Your task to perform on an android device: Install the Yelp app Image 0: 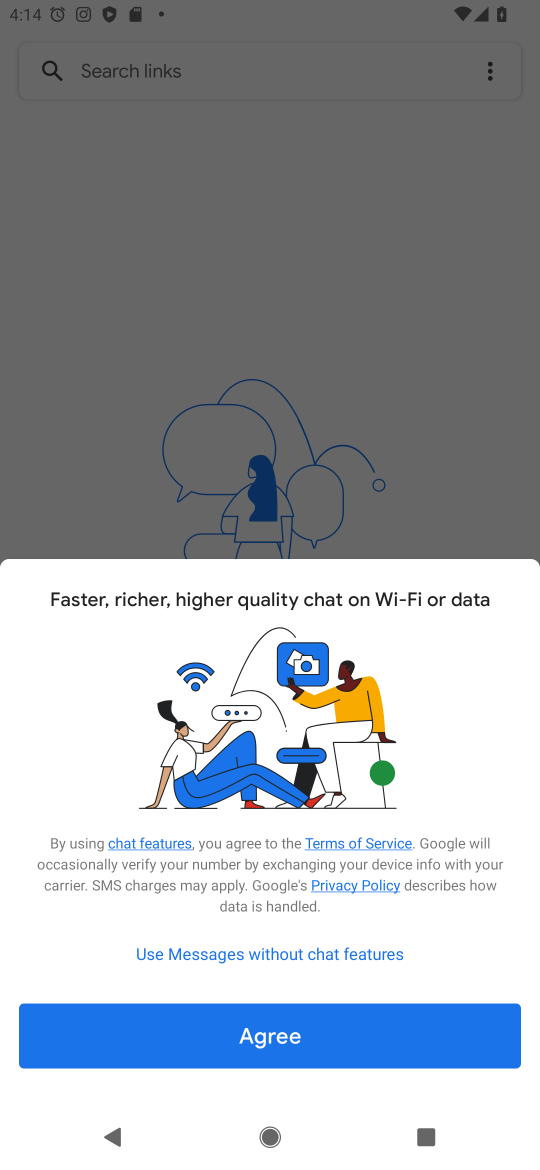
Step 0: press home button
Your task to perform on an android device: Install the Yelp app Image 1: 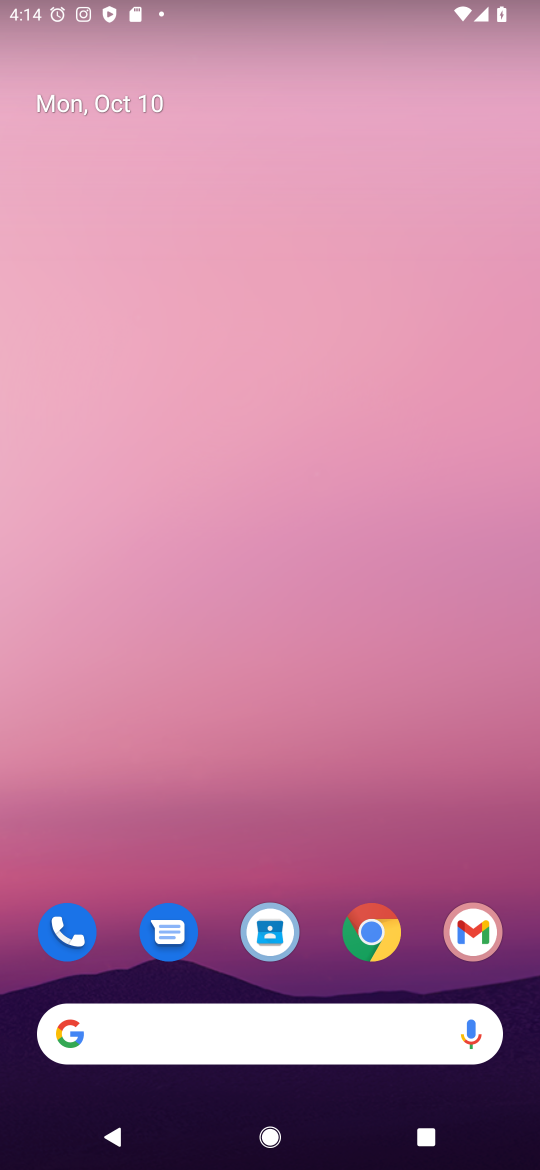
Step 1: drag from (493, 829) to (496, 72)
Your task to perform on an android device: Install the Yelp app Image 2: 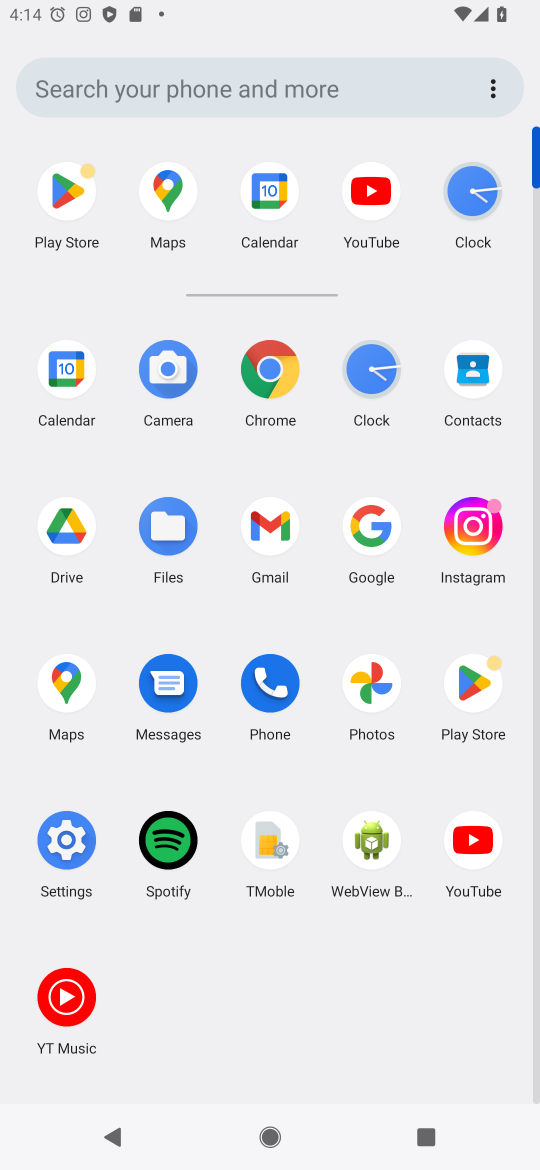
Step 2: click (471, 689)
Your task to perform on an android device: Install the Yelp app Image 3: 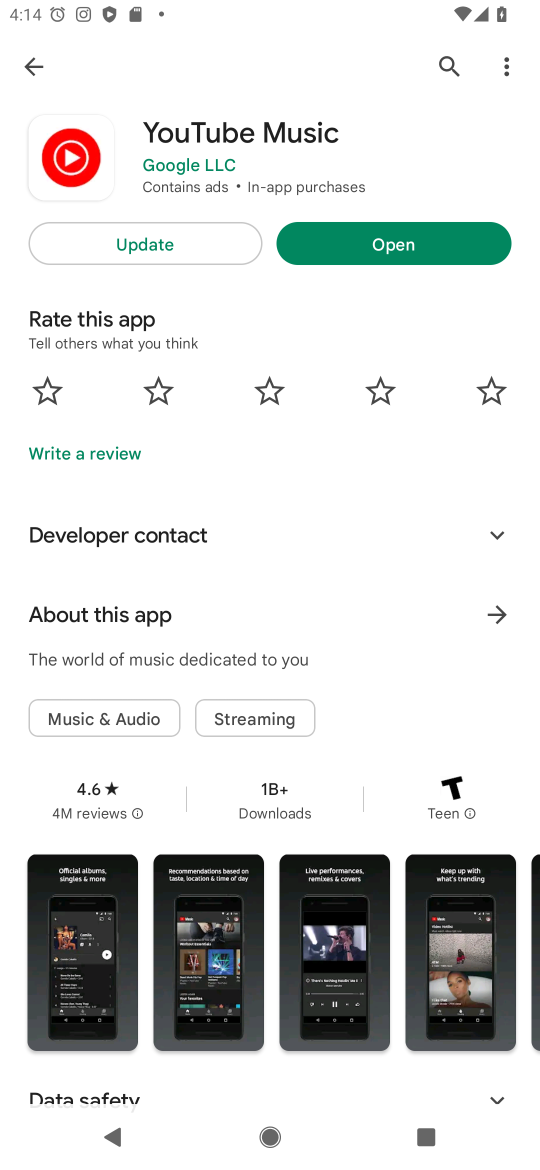
Step 3: press back button
Your task to perform on an android device: Install the Yelp app Image 4: 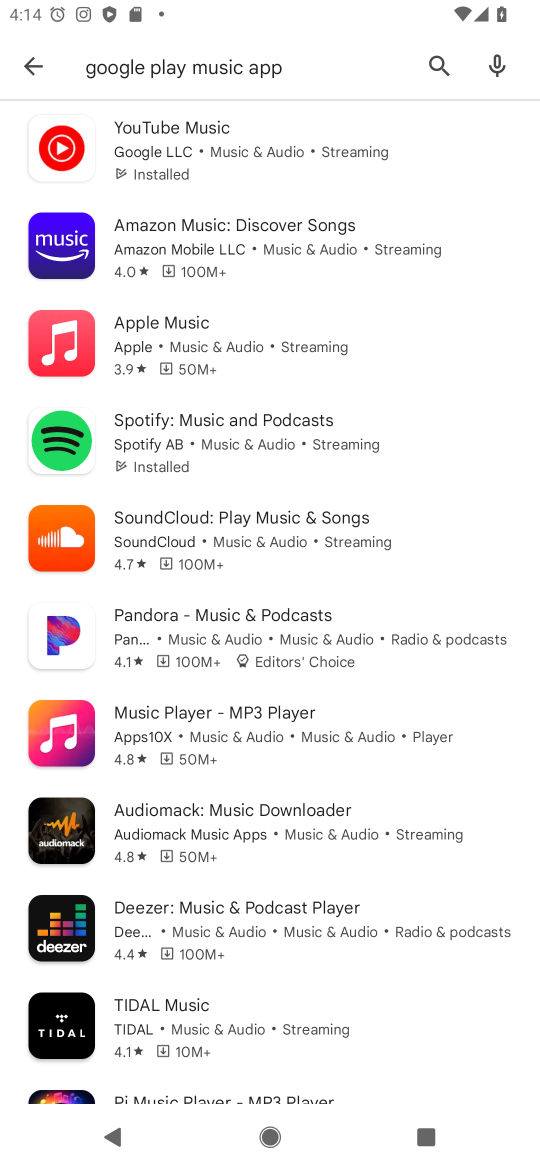
Step 4: press back button
Your task to perform on an android device: Install the Yelp app Image 5: 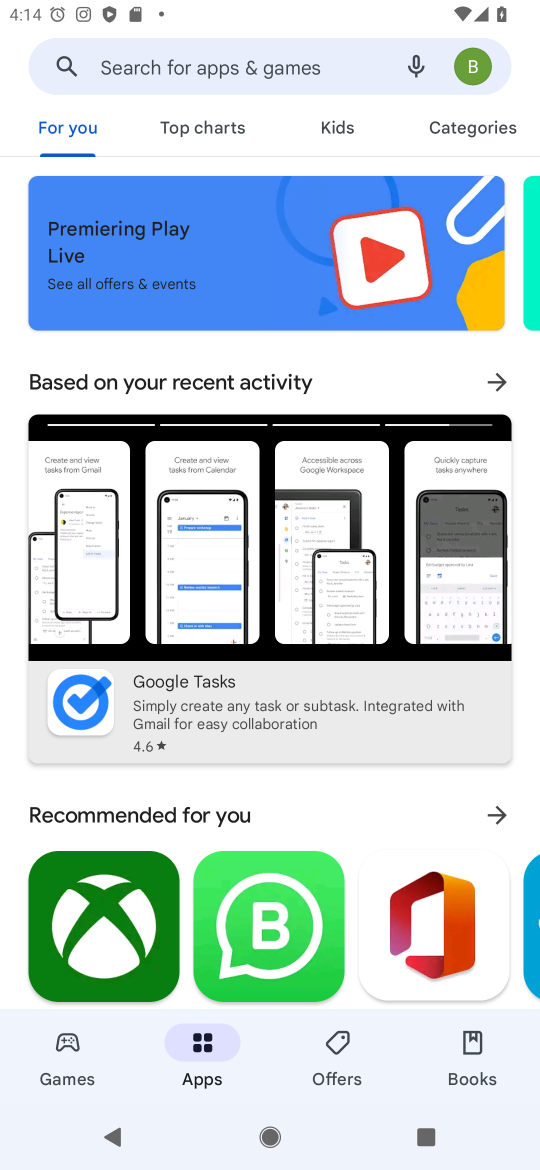
Step 5: click (278, 61)
Your task to perform on an android device: Install the Yelp app Image 6: 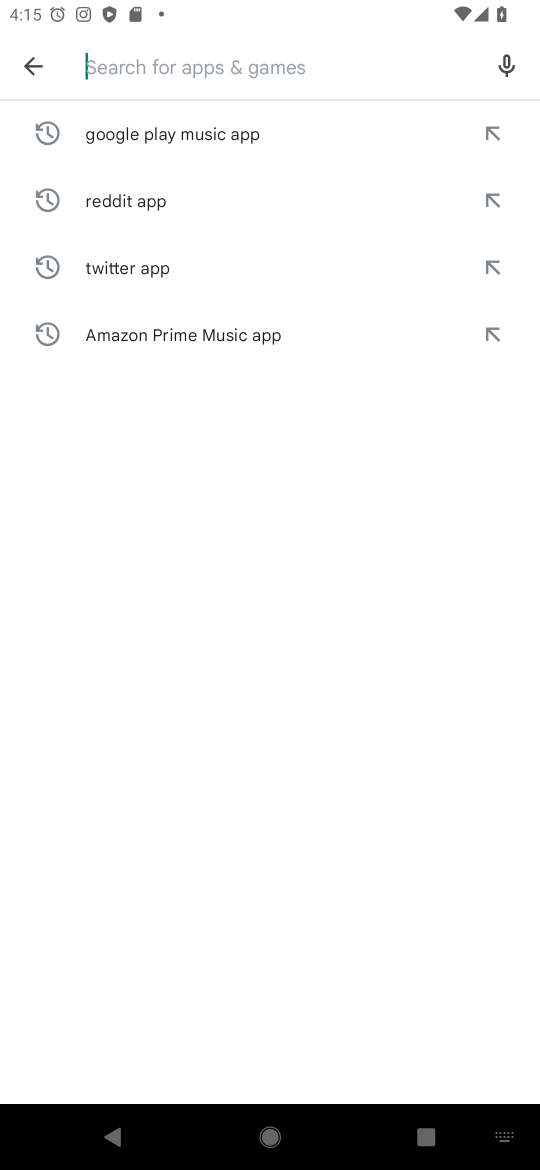
Step 6: type "yelp app"
Your task to perform on an android device: Install the Yelp app Image 7: 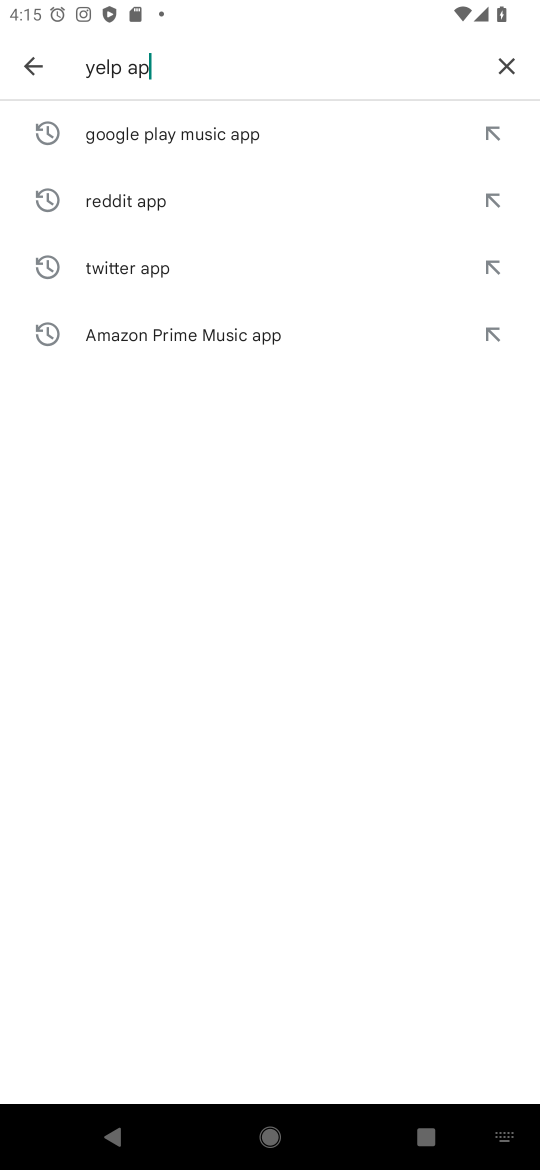
Step 7: press enter
Your task to perform on an android device: Install the Yelp app Image 8: 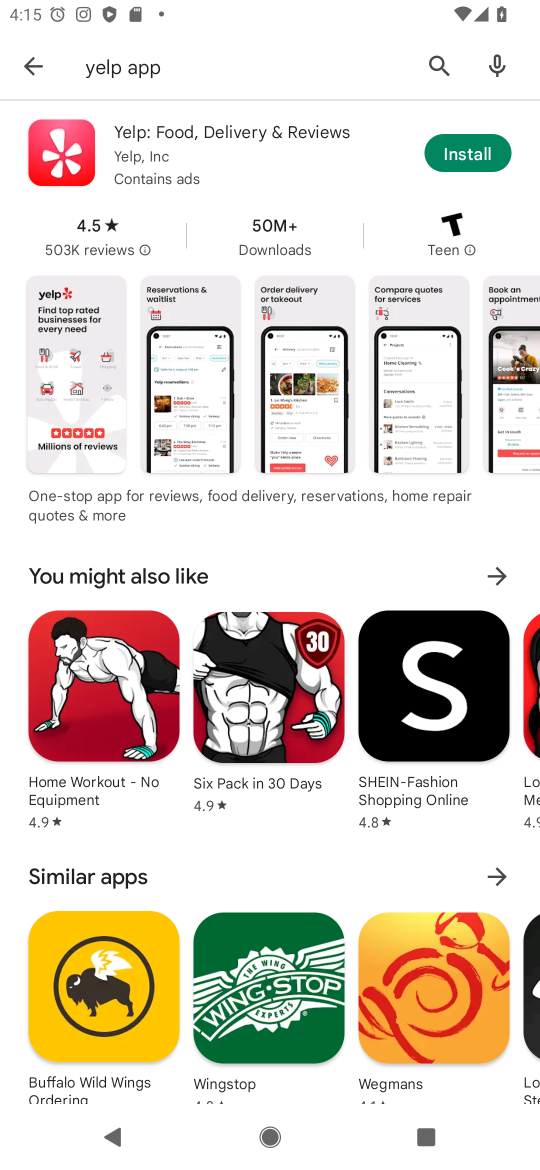
Step 8: click (484, 155)
Your task to perform on an android device: Install the Yelp app Image 9: 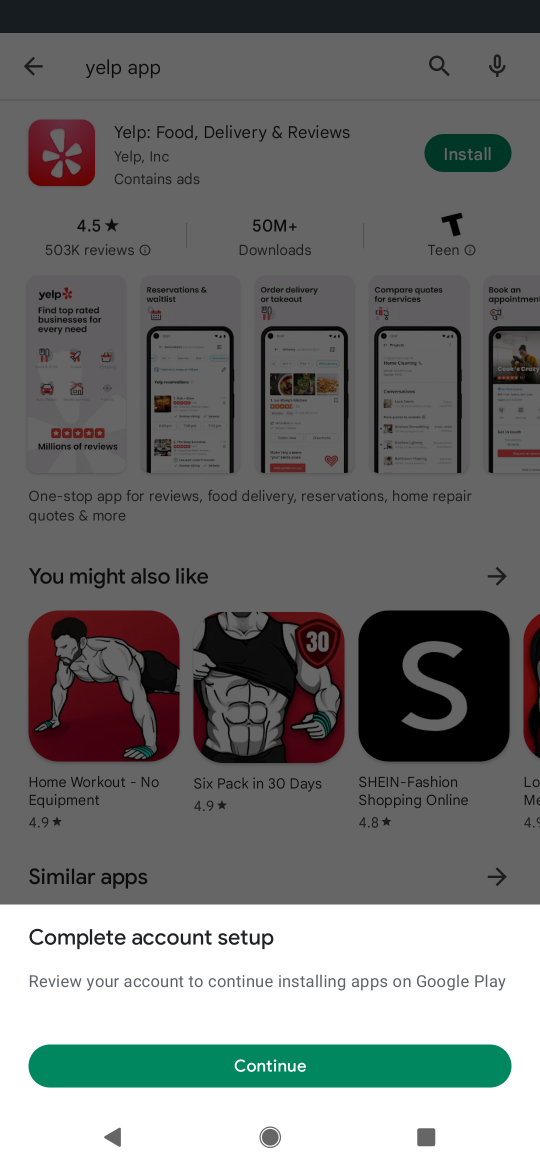
Step 9: click (293, 1068)
Your task to perform on an android device: Install the Yelp app Image 10: 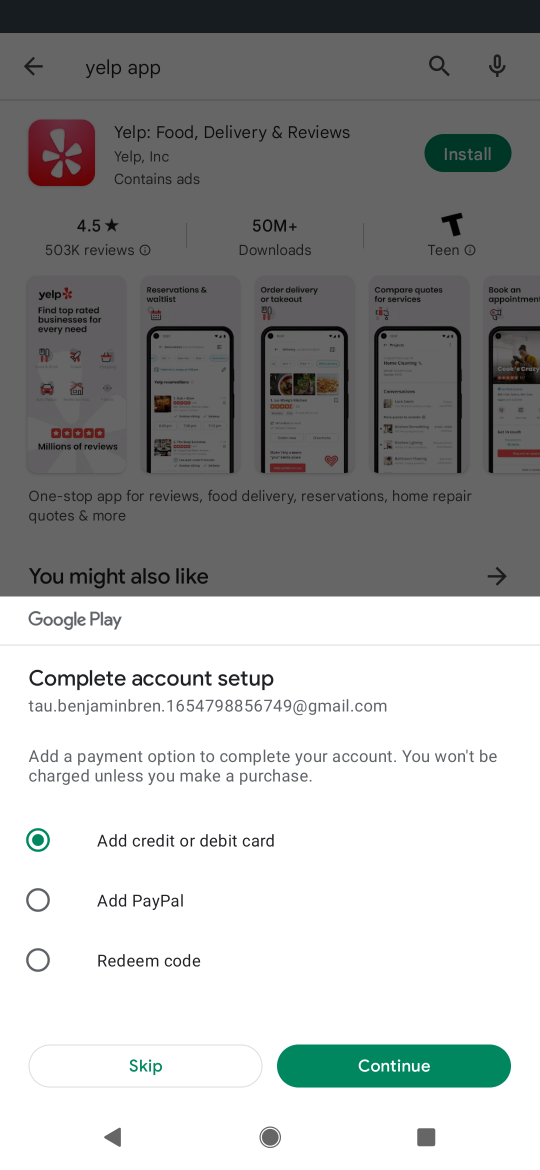
Step 10: click (153, 1052)
Your task to perform on an android device: Install the Yelp app Image 11: 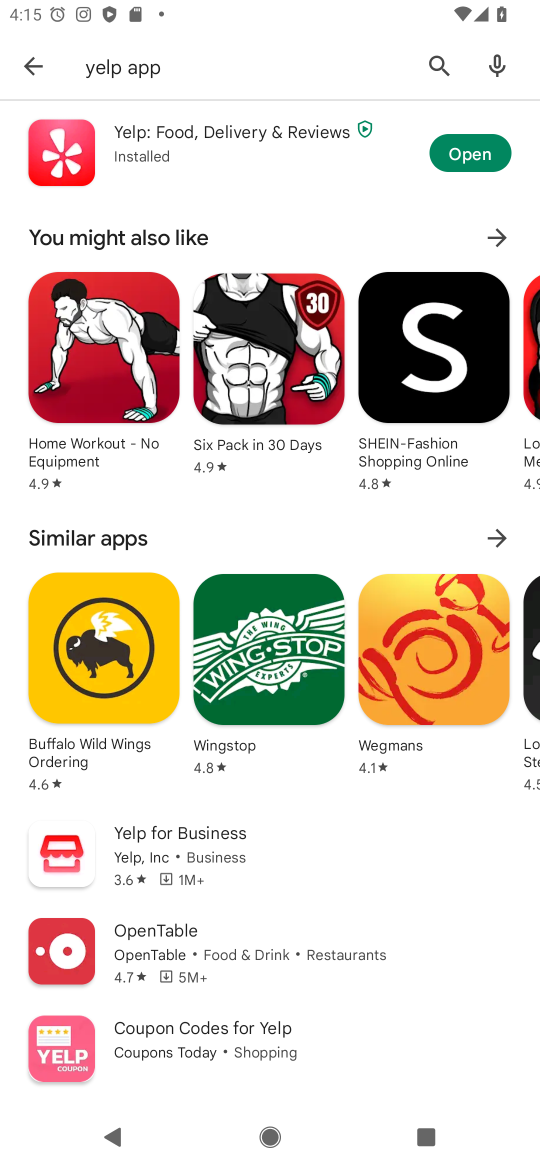
Step 11: task complete